Your task to perform on an android device: turn notification dots off Image 0: 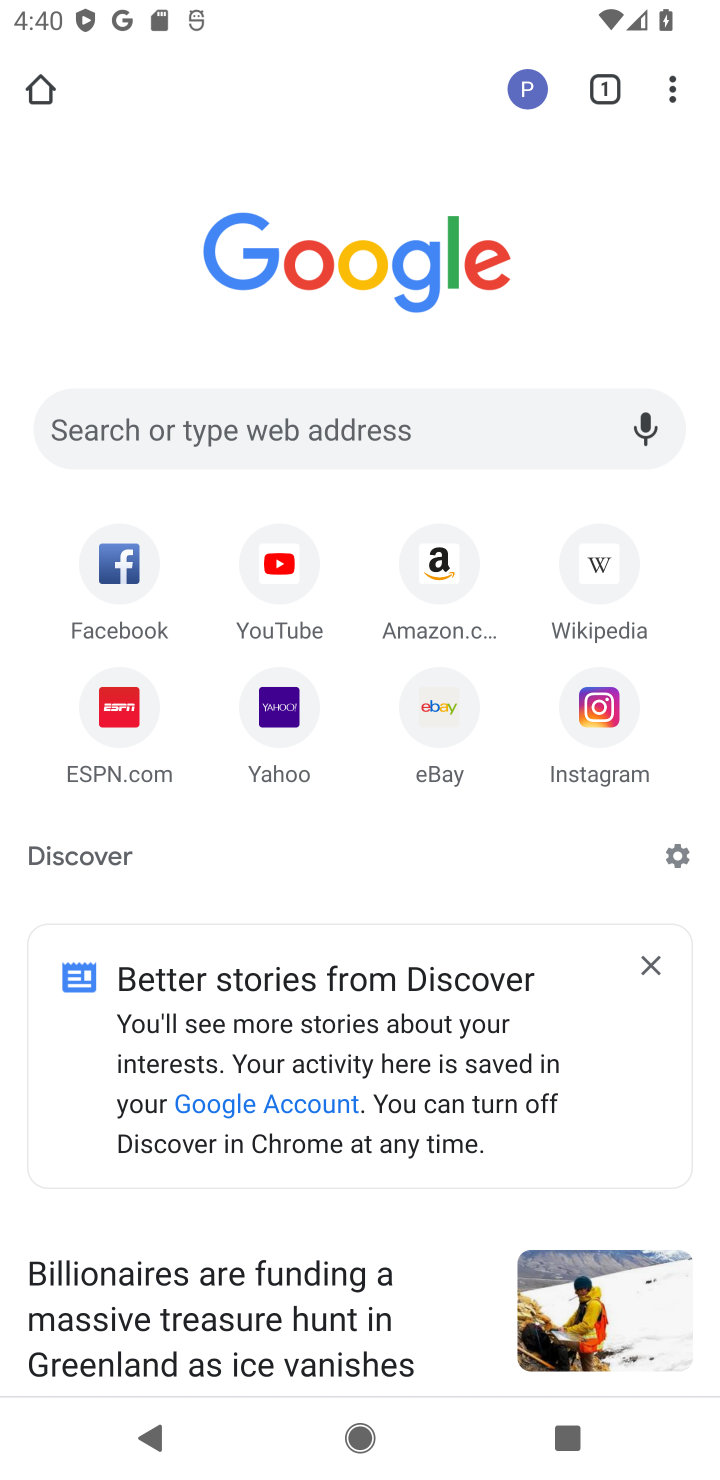
Step 0: press home button
Your task to perform on an android device: turn notification dots off Image 1: 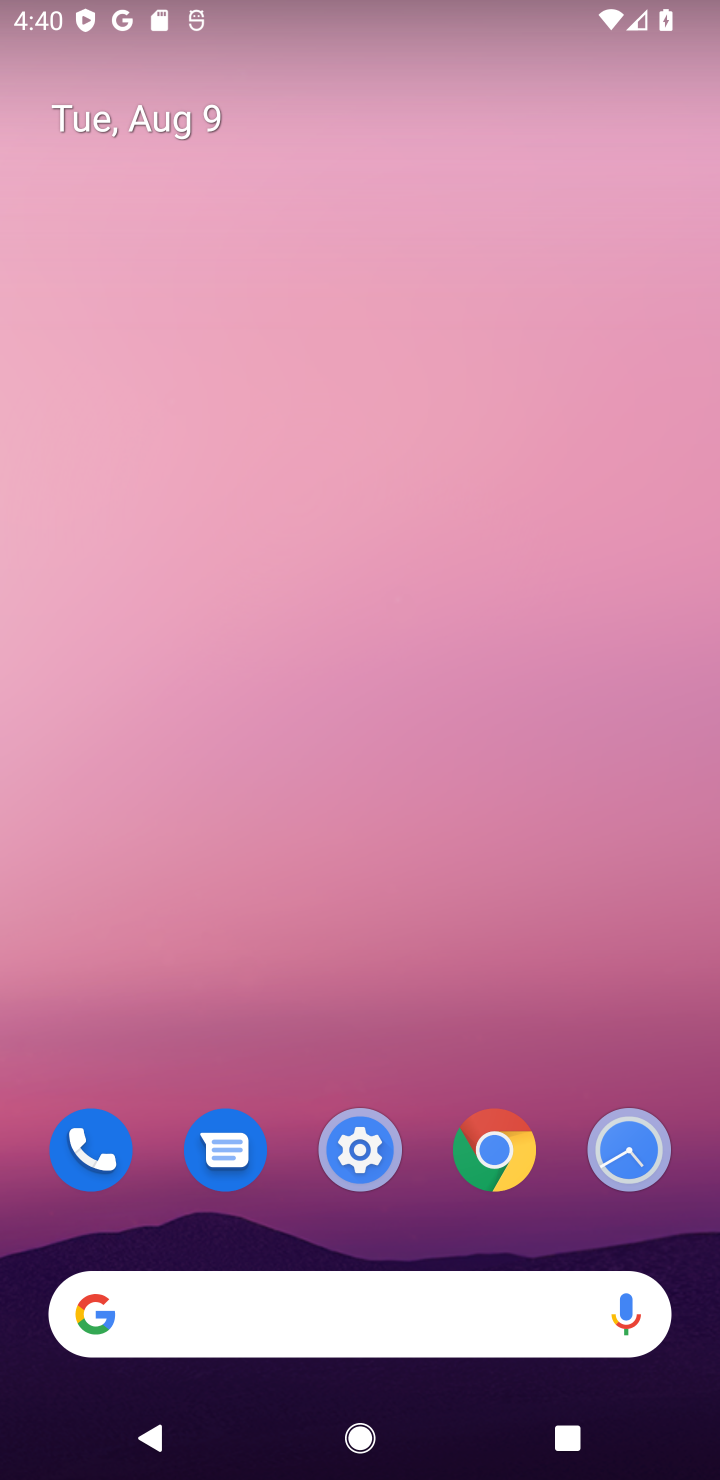
Step 1: drag from (354, 957) to (334, 5)
Your task to perform on an android device: turn notification dots off Image 2: 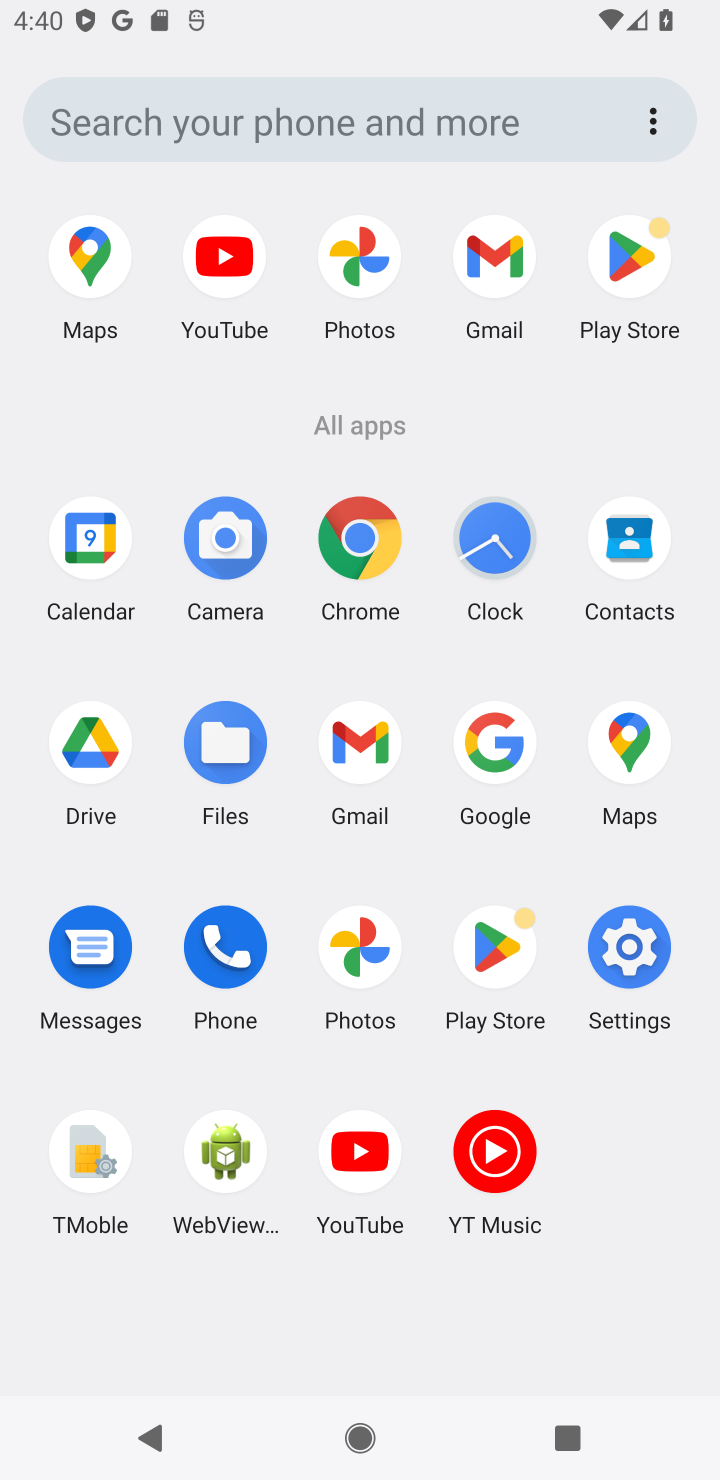
Step 2: click (620, 937)
Your task to perform on an android device: turn notification dots off Image 3: 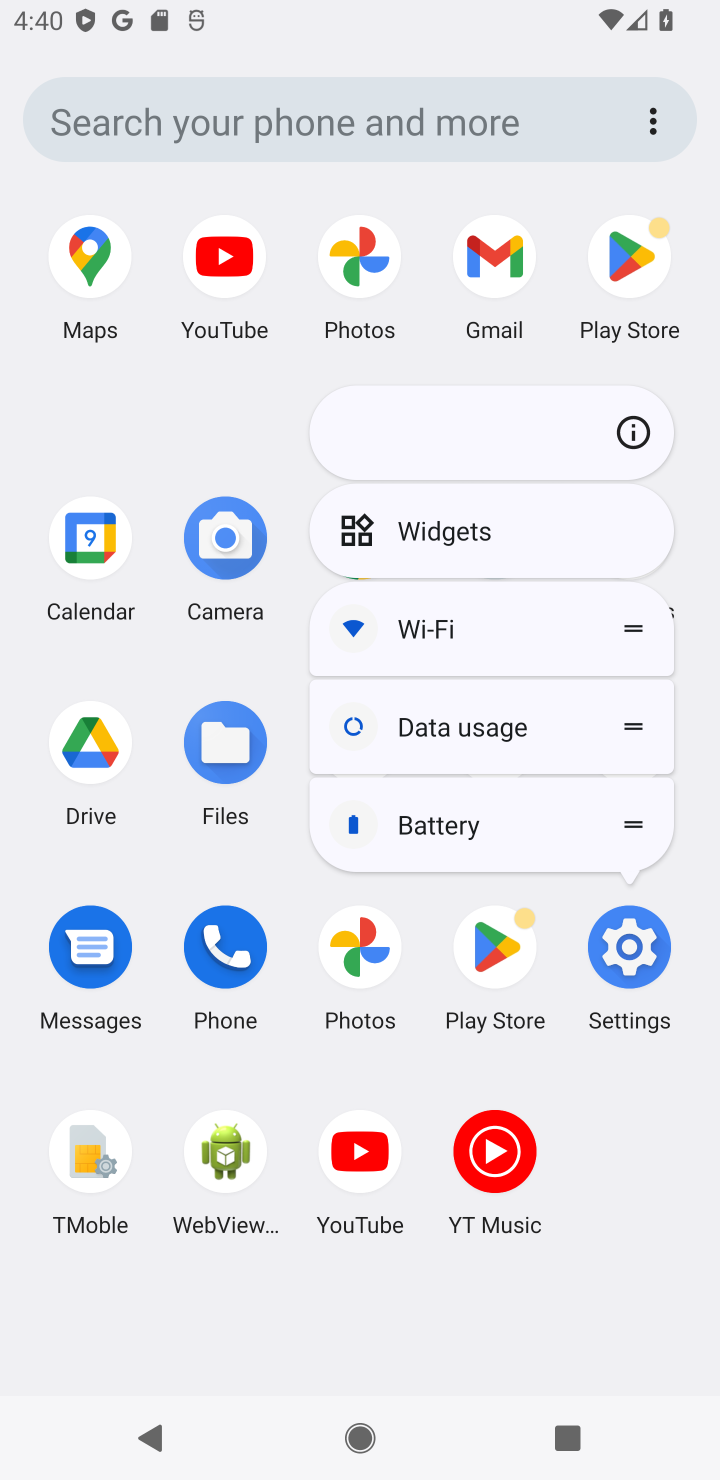
Step 3: click (639, 995)
Your task to perform on an android device: turn notification dots off Image 4: 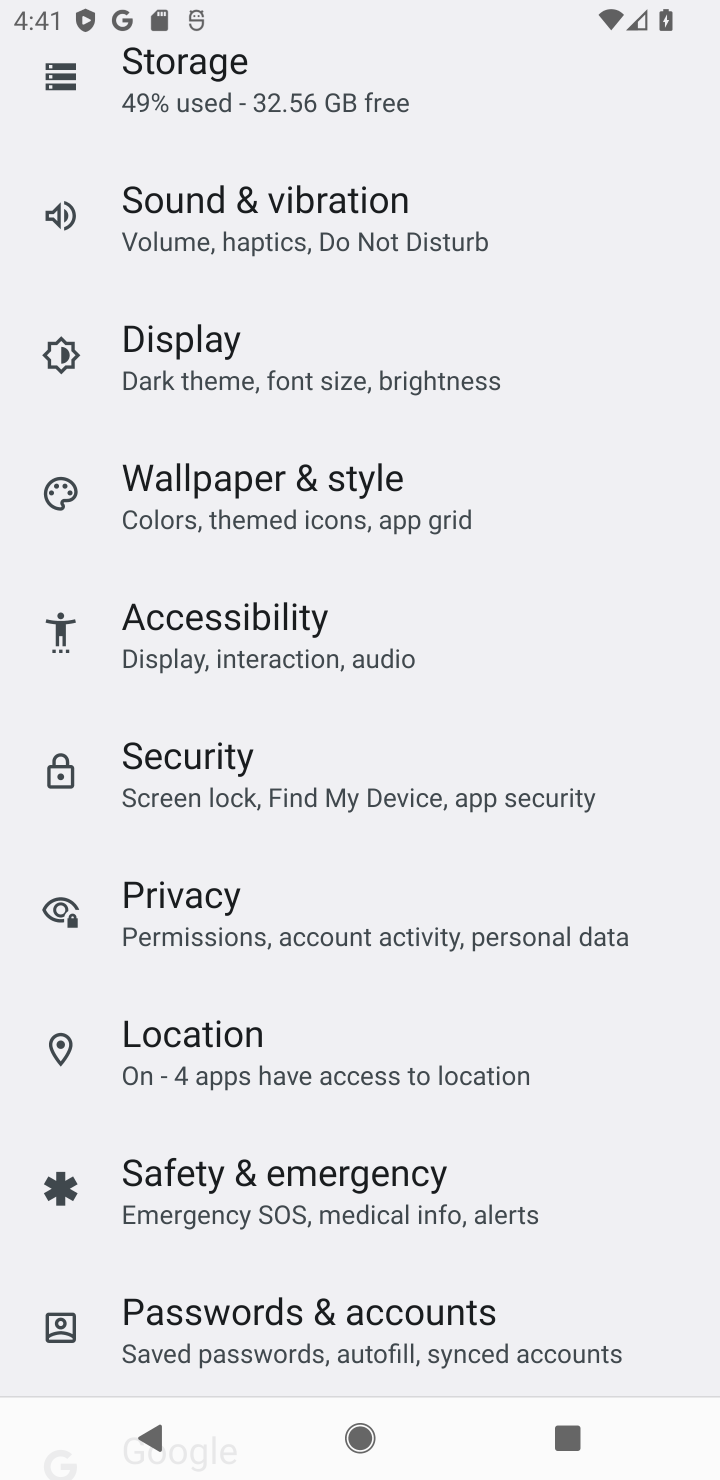
Step 4: drag from (355, 822) to (275, 1448)
Your task to perform on an android device: turn notification dots off Image 5: 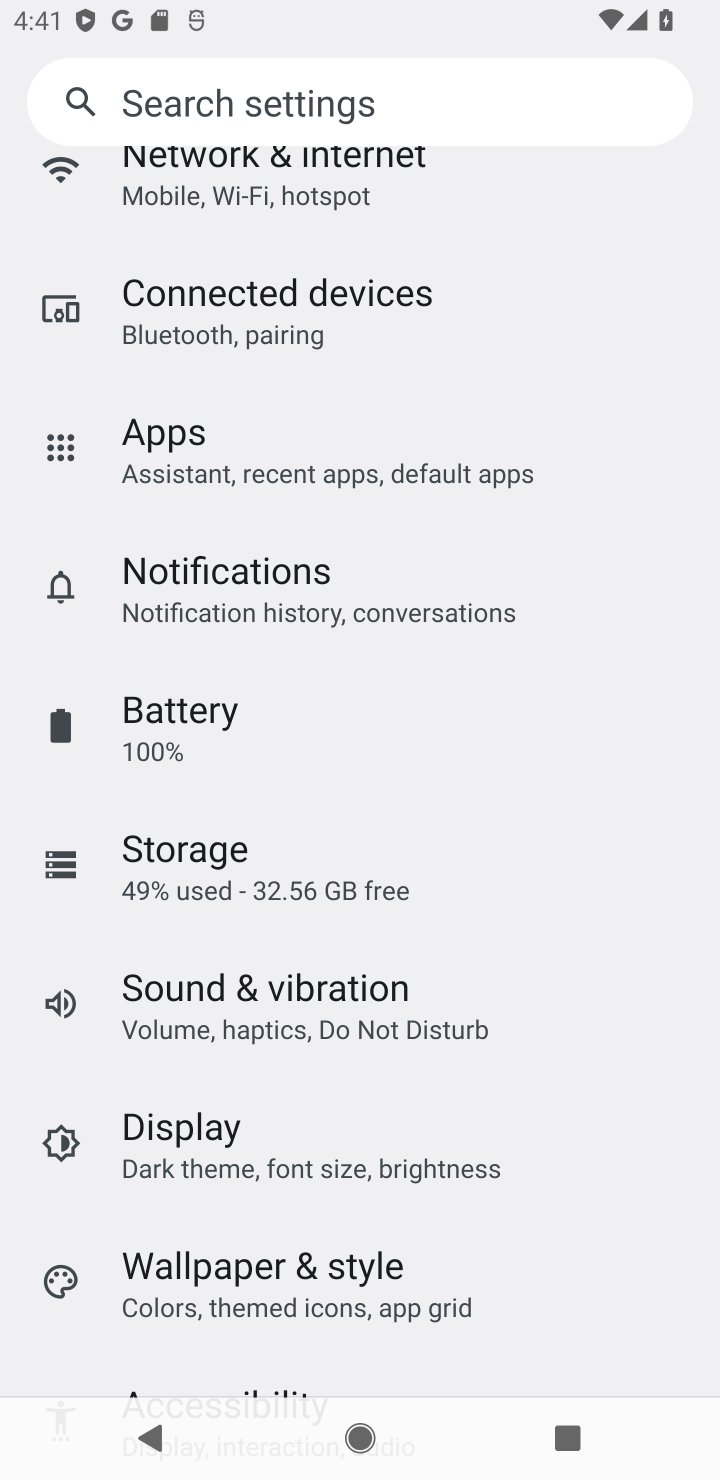
Step 5: click (153, 624)
Your task to perform on an android device: turn notification dots off Image 6: 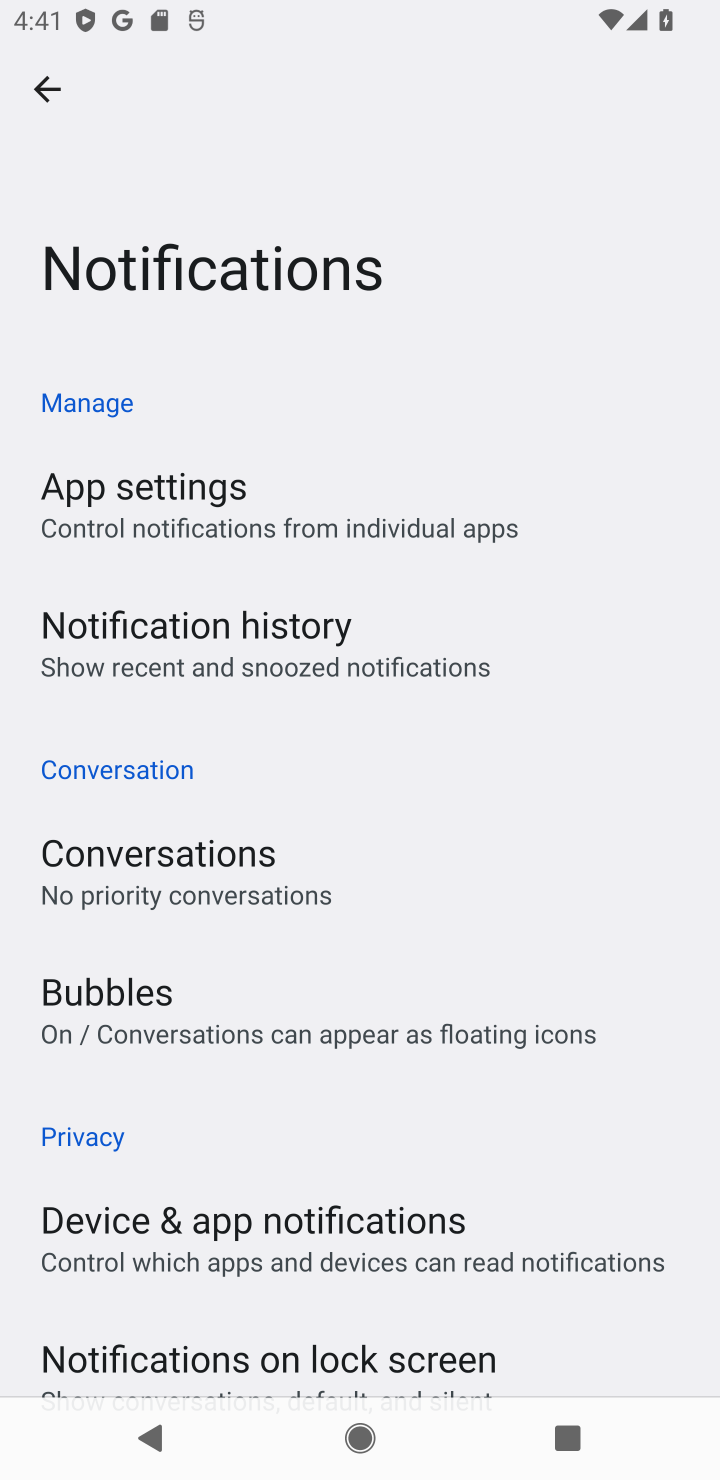
Step 6: drag from (258, 1207) to (105, 117)
Your task to perform on an android device: turn notification dots off Image 7: 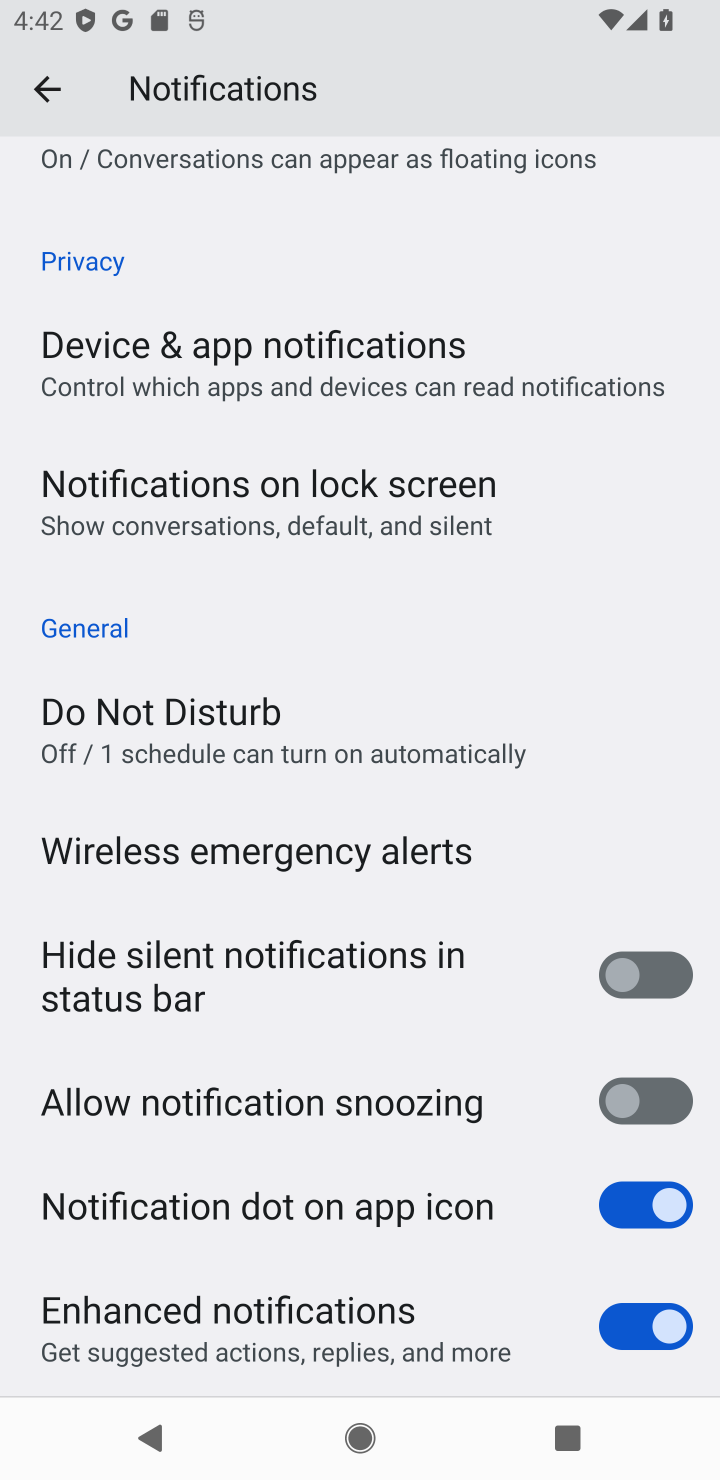
Step 7: click (621, 1202)
Your task to perform on an android device: turn notification dots off Image 8: 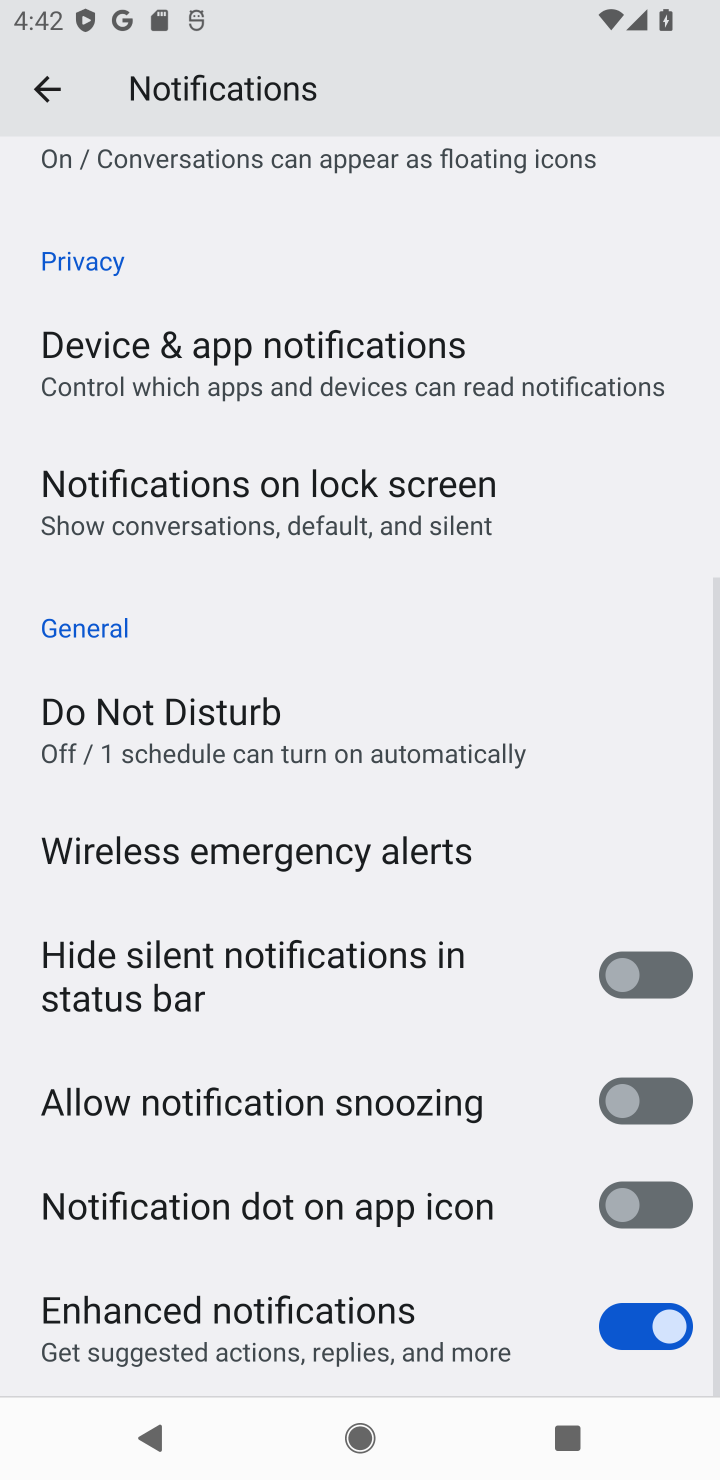
Step 8: task complete